Your task to perform on an android device: allow notifications from all sites in the chrome app Image 0: 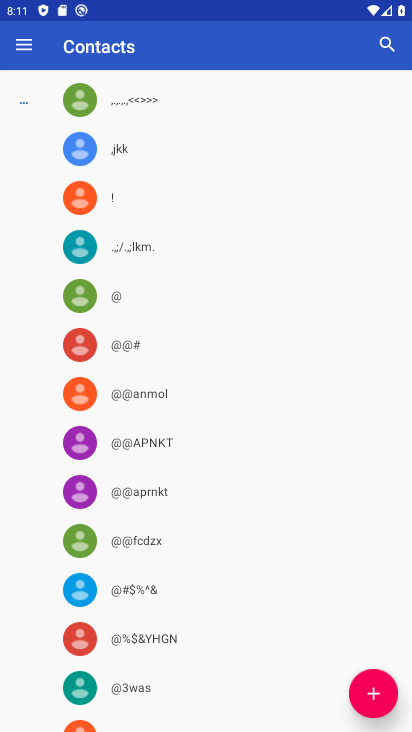
Step 0: press home button
Your task to perform on an android device: allow notifications from all sites in the chrome app Image 1: 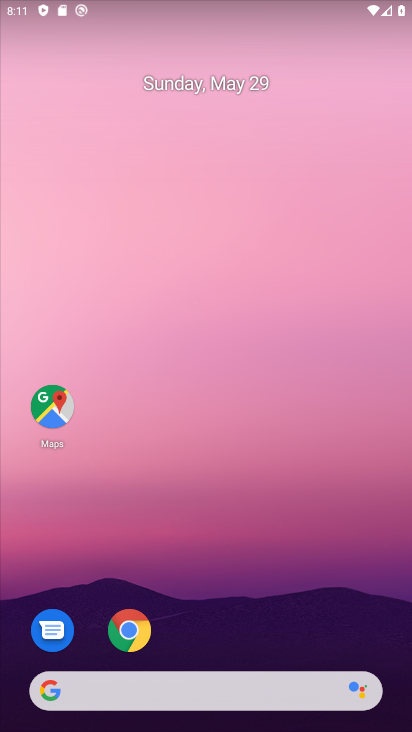
Step 1: click (115, 629)
Your task to perform on an android device: allow notifications from all sites in the chrome app Image 2: 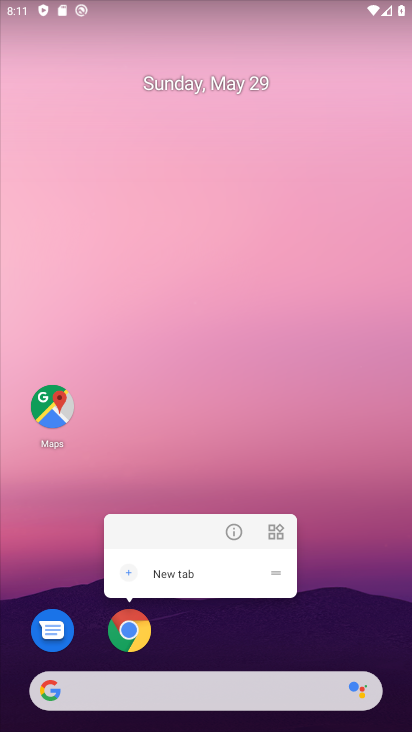
Step 2: click (125, 631)
Your task to perform on an android device: allow notifications from all sites in the chrome app Image 3: 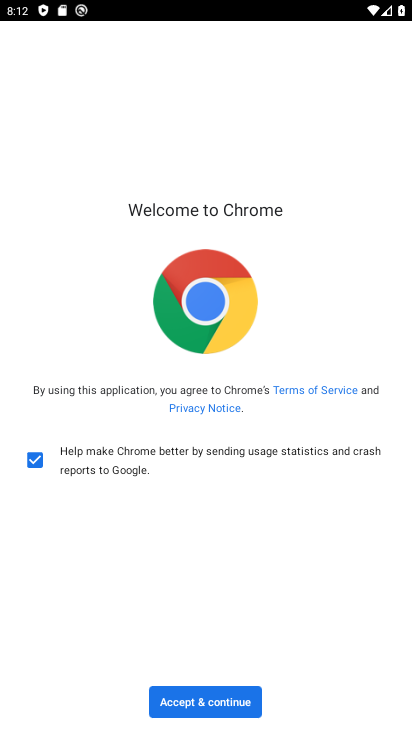
Step 3: click (202, 708)
Your task to perform on an android device: allow notifications from all sites in the chrome app Image 4: 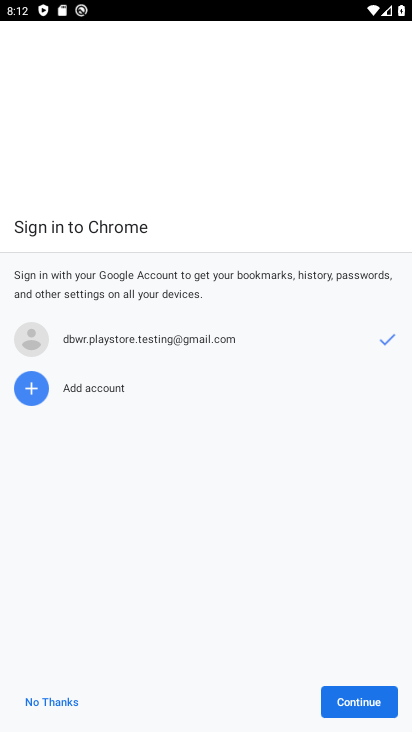
Step 4: click (345, 697)
Your task to perform on an android device: allow notifications from all sites in the chrome app Image 5: 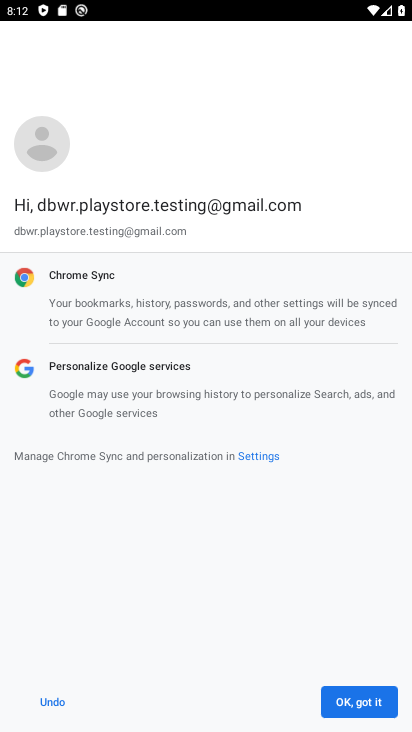
Step 5: click (345, 697)
Your task to perform on an android device: allow notifications from all sites in the chrome app Image 6: 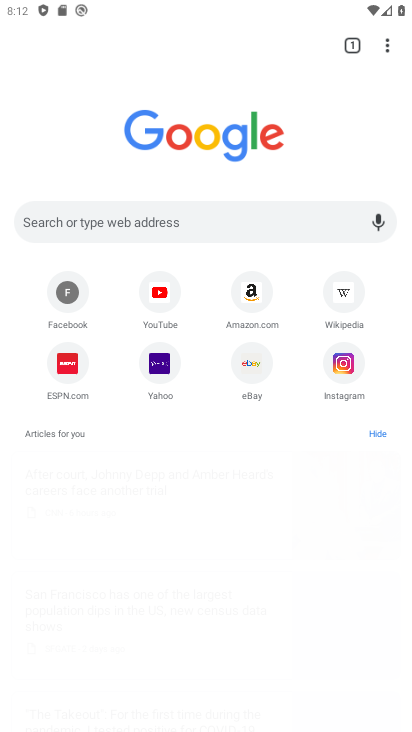
Step 6: click (389, 46)
Your task to perform on an android device: allow notifications from all sites in the chrome app Image 7: 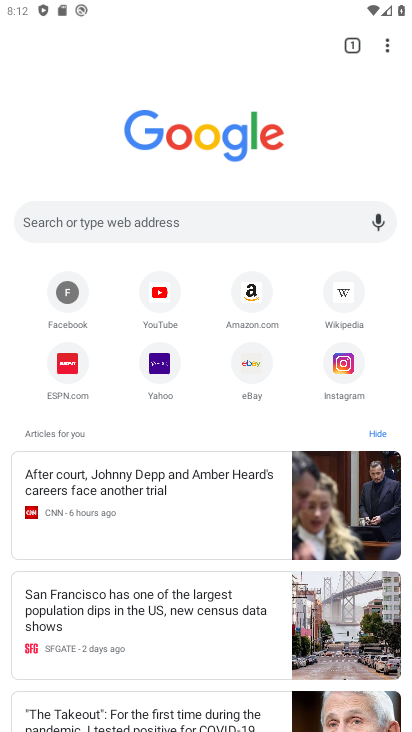
Step 7: click (388, 44)
Your task to perform on an android device: allow notifications from all sites in the chrome app Image 8: 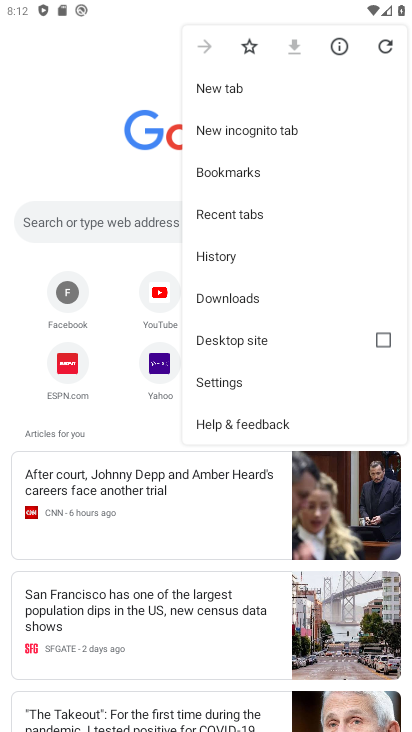
Step 8: click (218, 379)
Your task to perform on an android device: allow notifications from all sites in the chrome app Image 9: 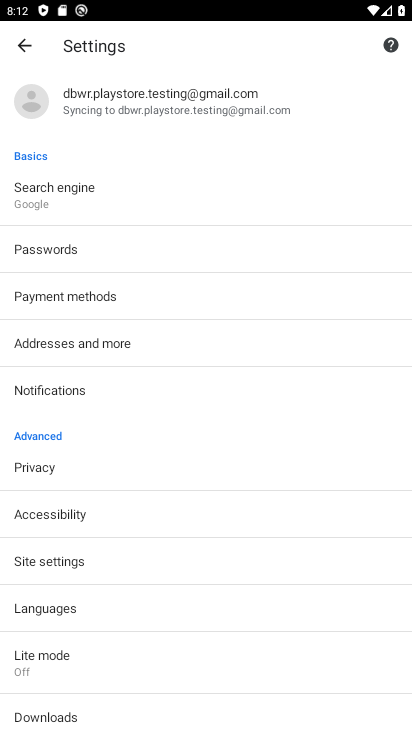
Step 9: click (57, 559)
Your task to perform on an android device: allow notifications from all sites in the chrome app Image 10: 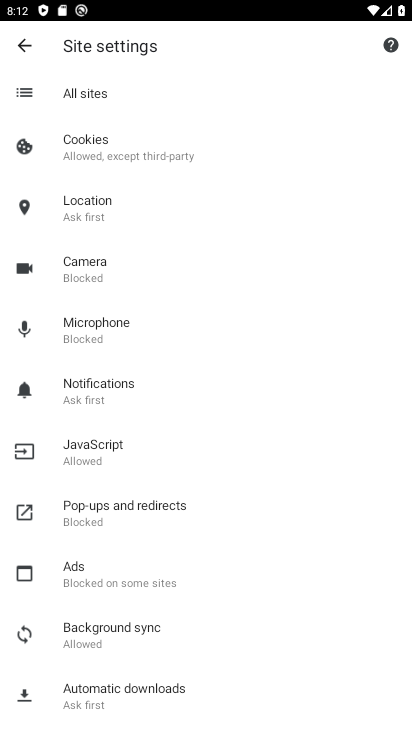
Step 10: click (68, 380)
Your task to perform on an android device: allow notifications from all sites in the chrome app Image 11: 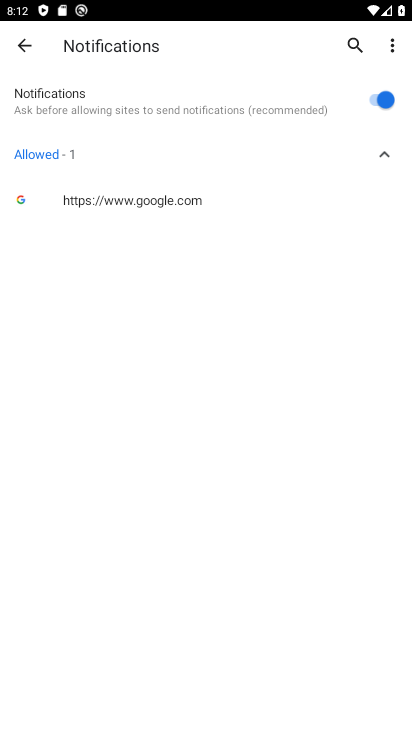
Step 11: task complete